Your task to perform on an android device: turn on javascript in the chrome app Image 0: 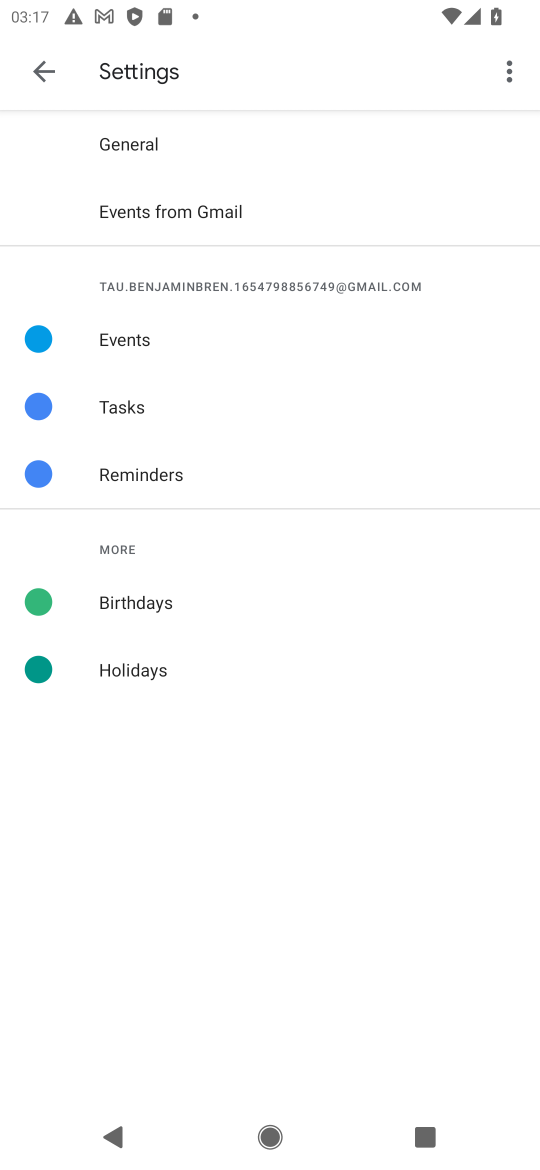
Step 0: press home button
Your task to perform on an android device: turn on javascript in the chrome app Image 1: 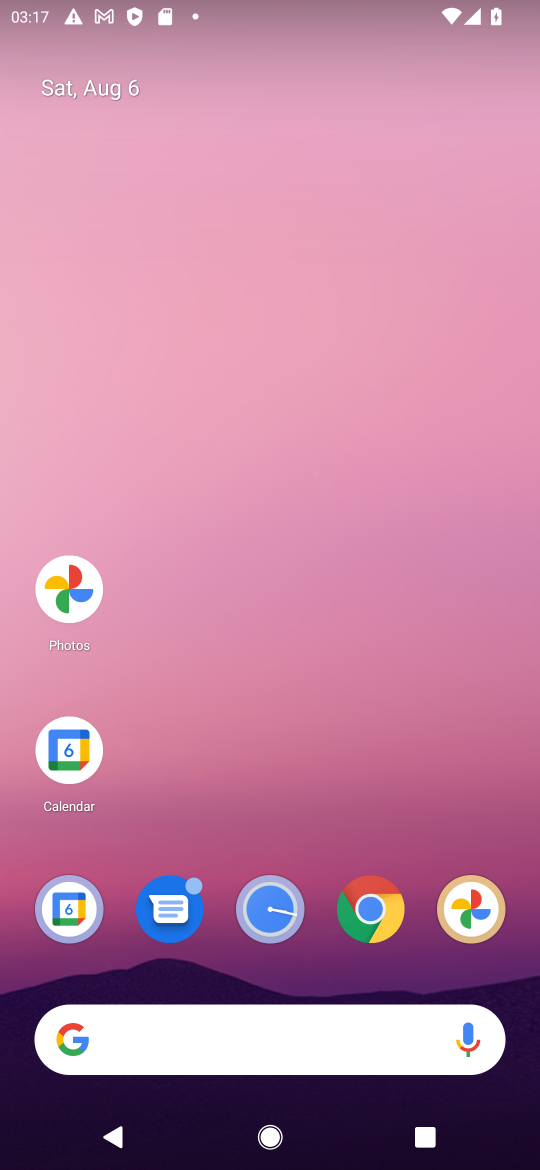
Step 1: click (370, 908)
Your task to perform on an android device: turn on javascript in the chrome app Image 2: 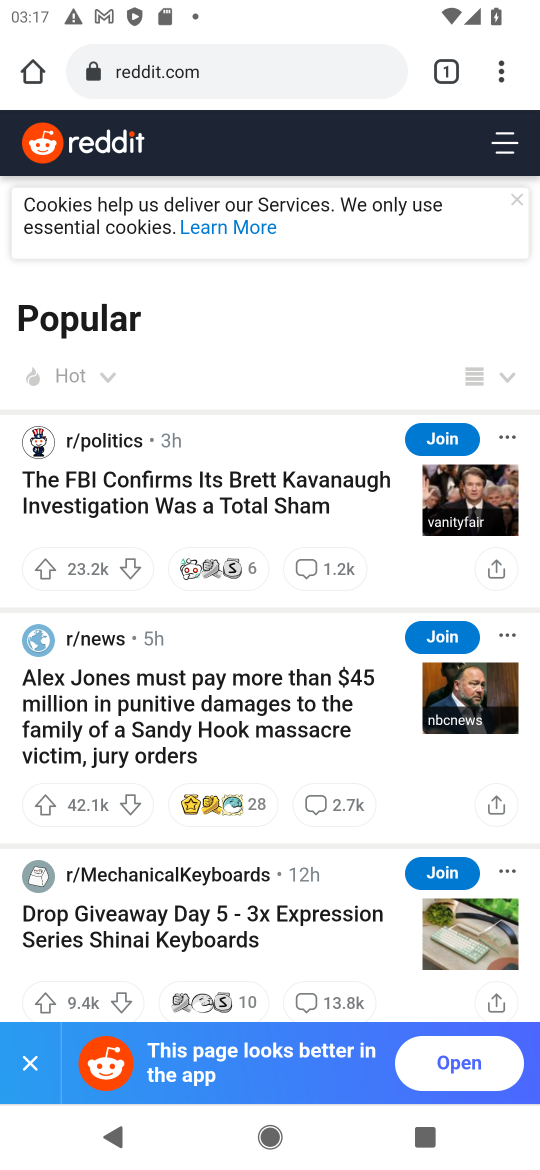
Step 2: click (508, 71)
Your task to perform on an android device: turn on javascript in the chrome app Image 3: 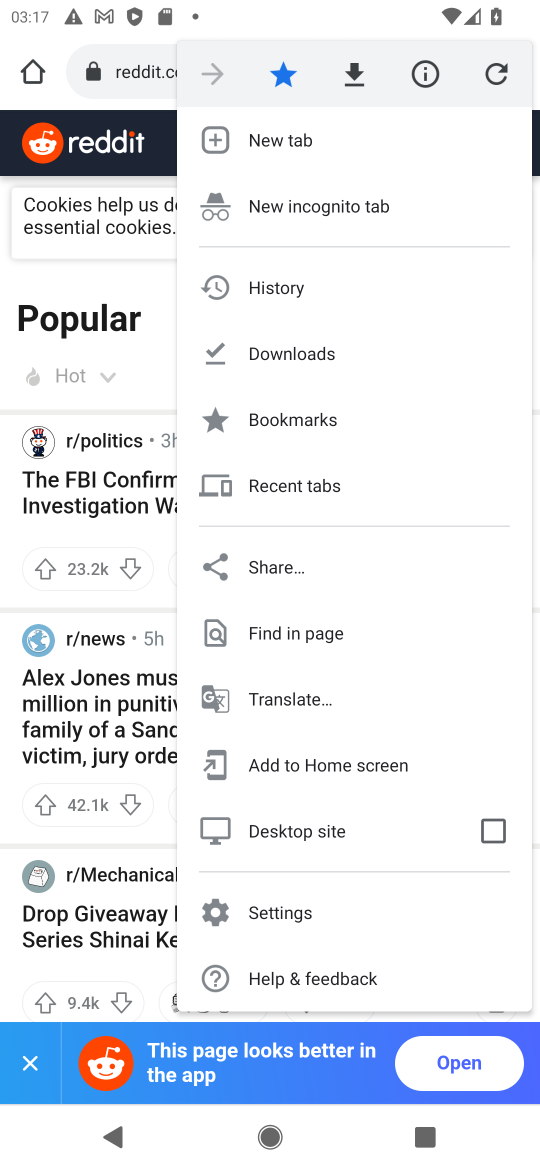
Step 3: click (268, 912)
Your task to perform on an android device: turn on javascript in the chrome app Image 4: 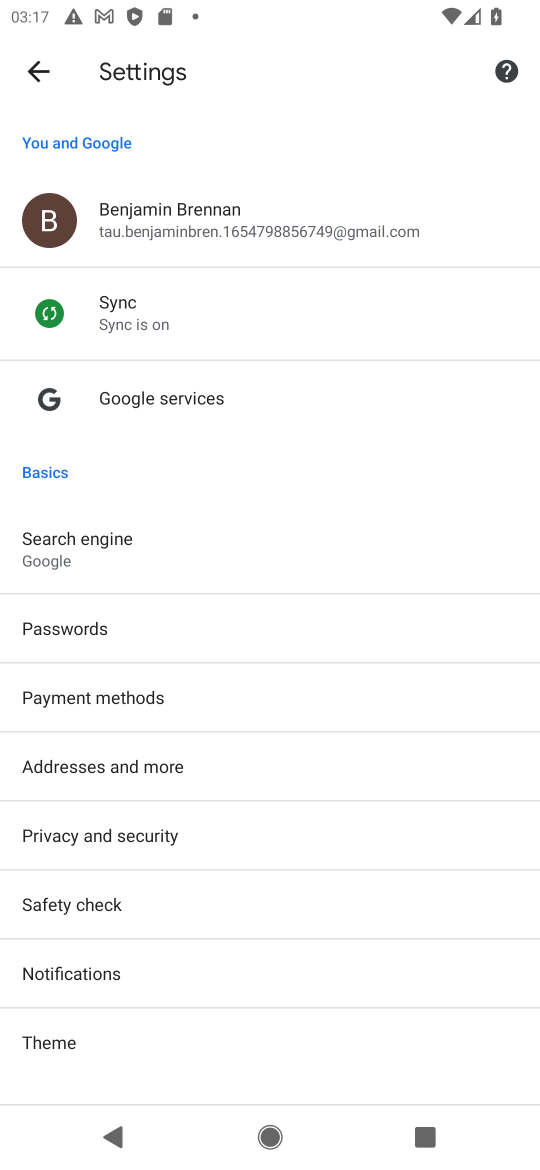
Step 4: drag from (174, 970) to (162, 479)
Your task to perform on an android device: turn on javascript in the chrome app Image 5: 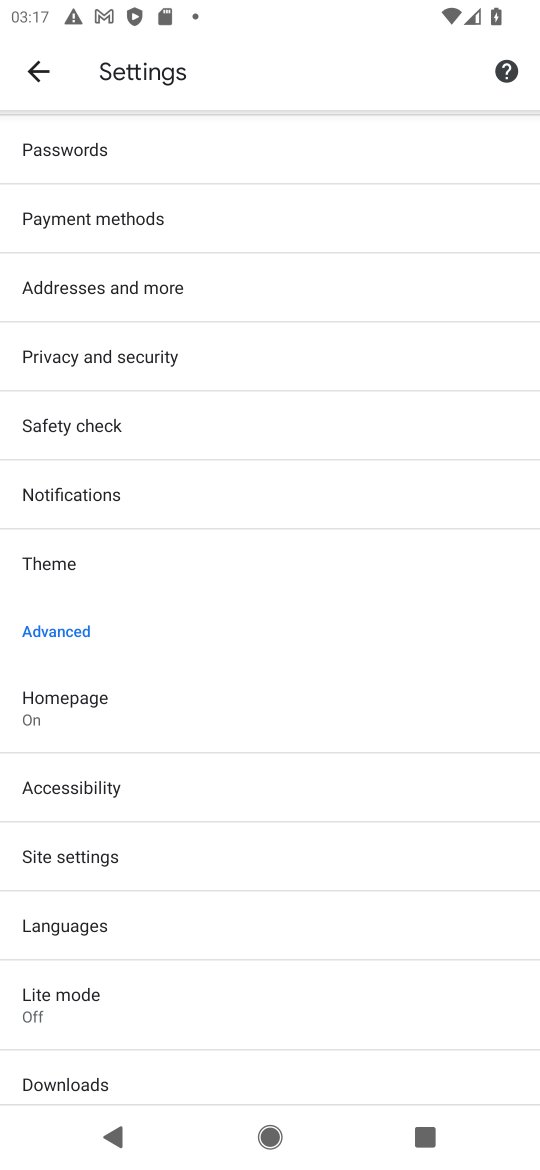
Step 5: click (69, 855)
Your task to perform on an android device: turn on javascript in the chrome app Image 6: 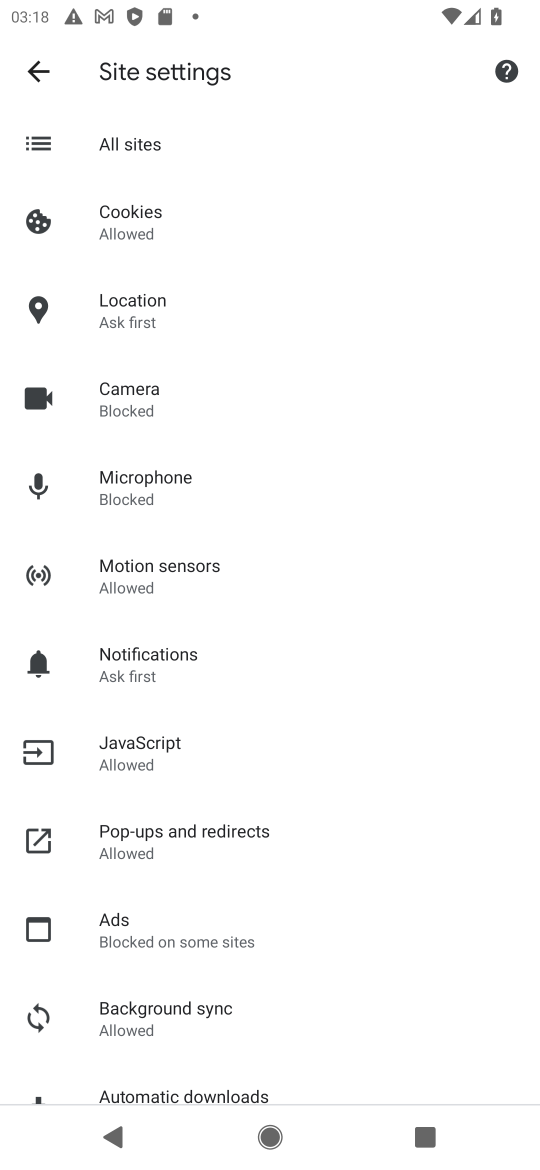
Step 6: click (142, 739)
Your task to perform on an android device: turn on javascript in the chrome app Image 7: 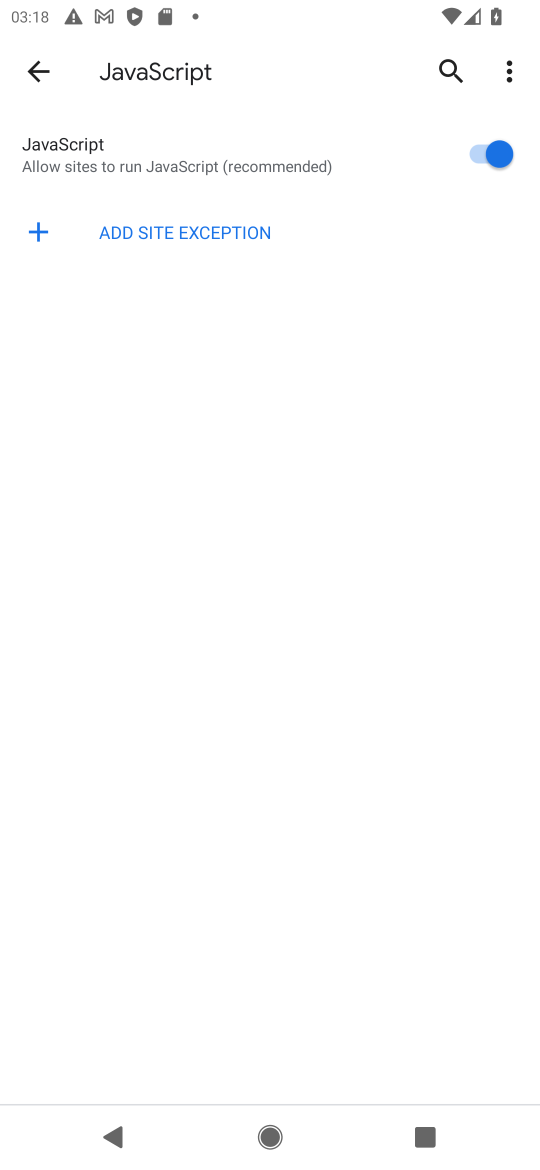
Step 7: task complete